Your task to perform on an android device: turn on wifi Image 0: 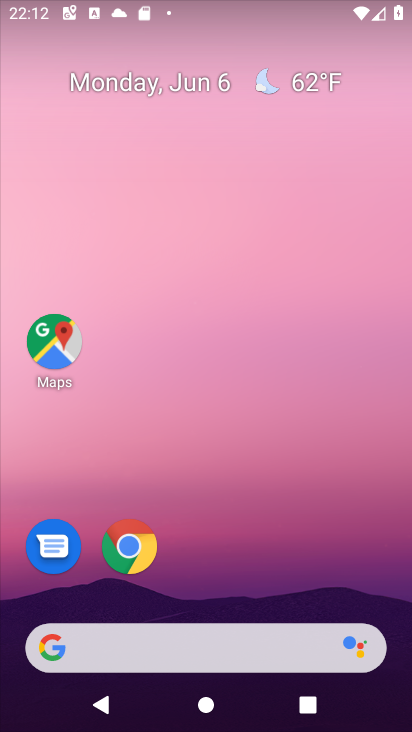
Step 0: drag from (357, 598) to (307, 131)
Your task to perform on an android device: turn on wifi Image 1: 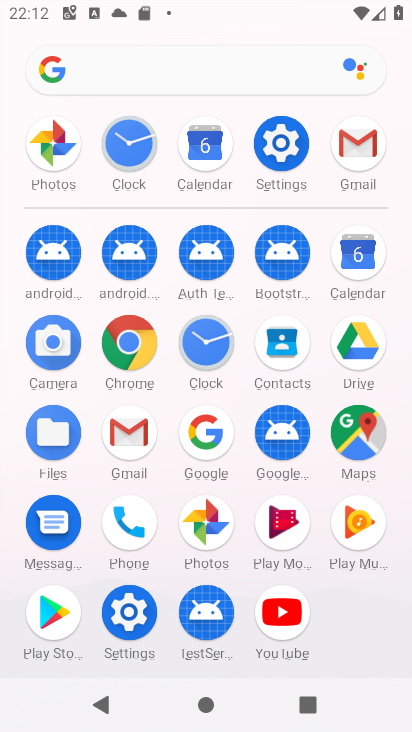
Step 1: click (130, 616)
Your task to perform on an android device: turn on wifi Image 2: 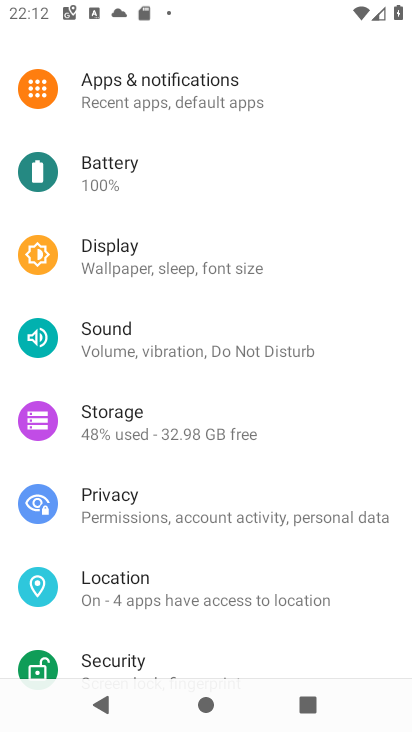
Step 2: drag from (344, 168) to (332, 436)
Your task to perform on an android device: turn on wifi Image 3: 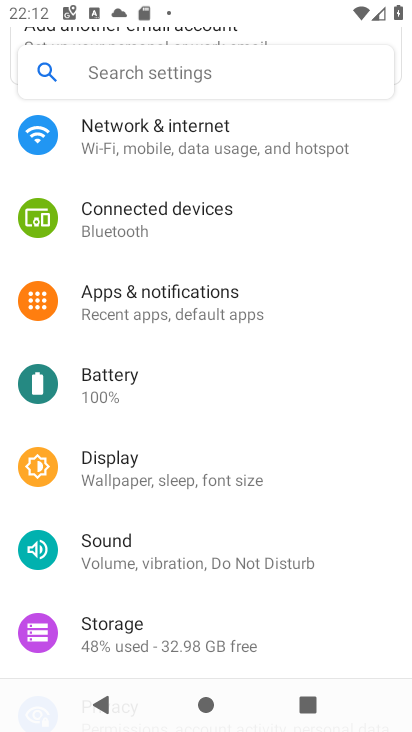
Step 3: click (139, 123)
Your task to perform on an android device: turn on wifi Image 4: 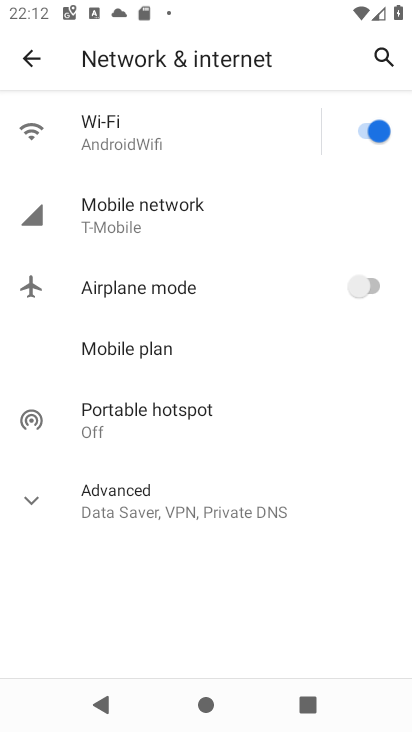
Step 4: task complete